Your task to perform on an android device: turn on javascript in the chrome app Image 0: 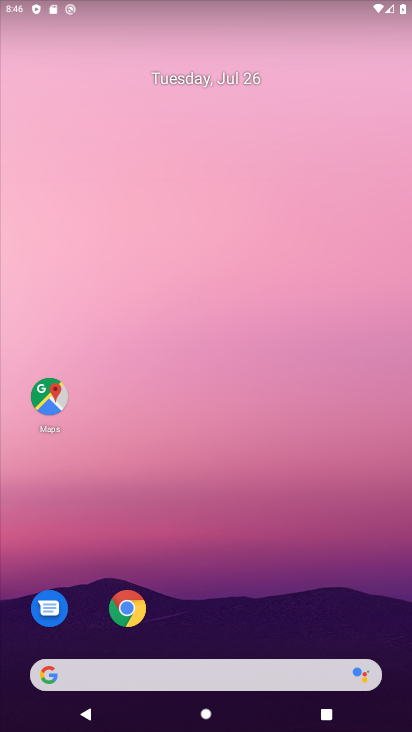
Step 0: click (119, 612)
Your task to perform on an android device: turn on javascript in the chrome app Image 1: 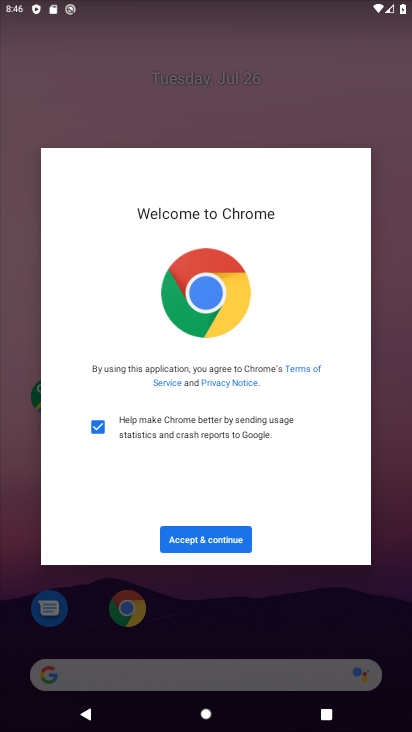
Step 1: click (231, 537)
Your task to perform on an android device: turn on javascript in the chrome app Image 2: 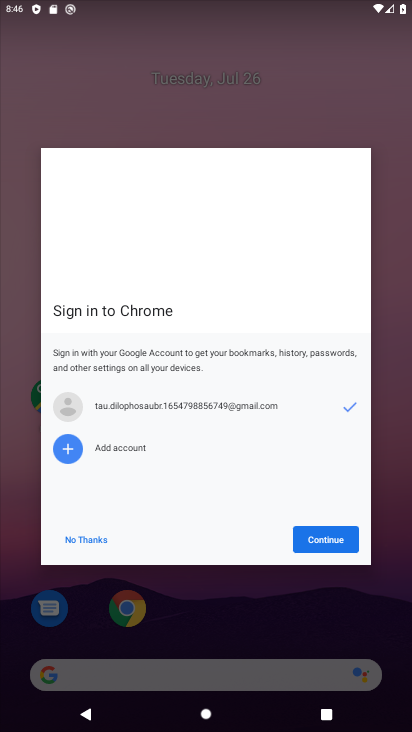
Step 2: click (342, 543)
Your task to perform on an android device: turn on javascript in the chrome app Image 3: 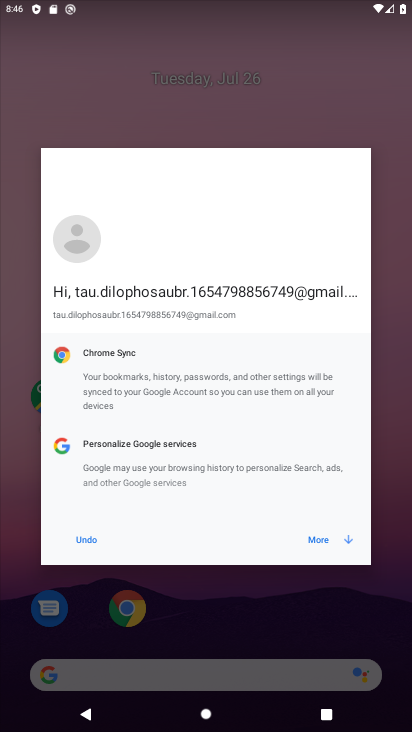
Step 3: click (342, 543)
Your task to perform on an android device: turn on javascript in the chrome app Image 4: 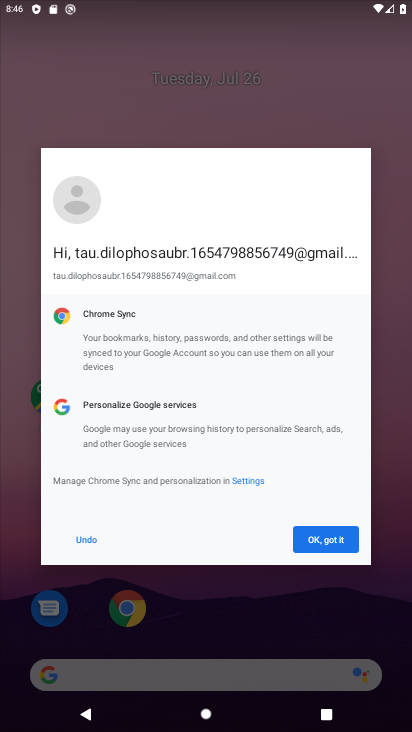
Step 4: click (342, 543)
Your task to perform on an android device: turn on javascript in the chrome app Image 5: 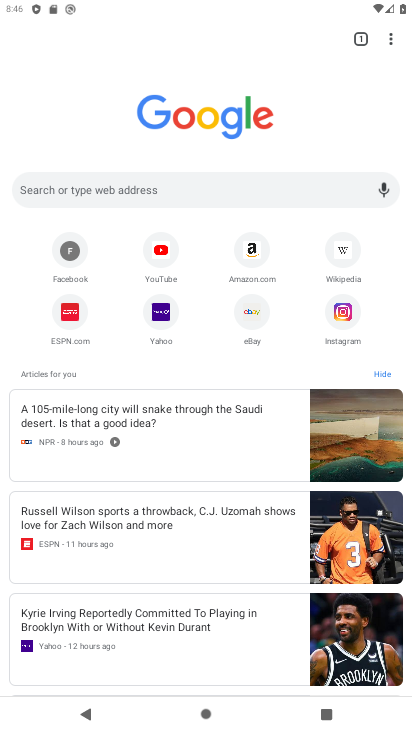
Step 5: click (393, 42)
Your task to perform on an android device: turn on javascript in the chrome app Image 6: 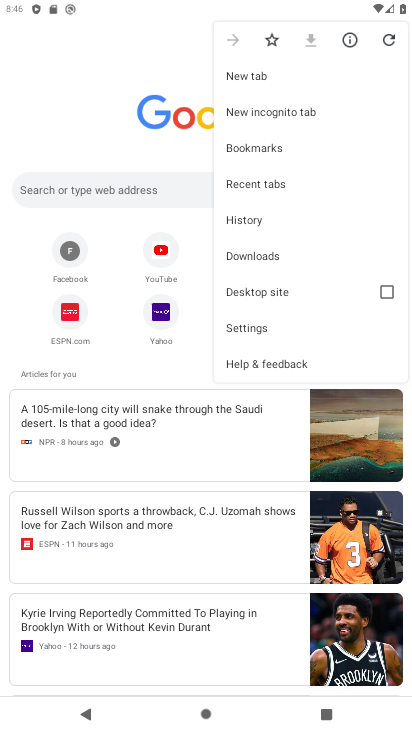
Step 6: click (282, 322)
Your task to perform on an android device: turn on javascript in the chrome app Image 7: 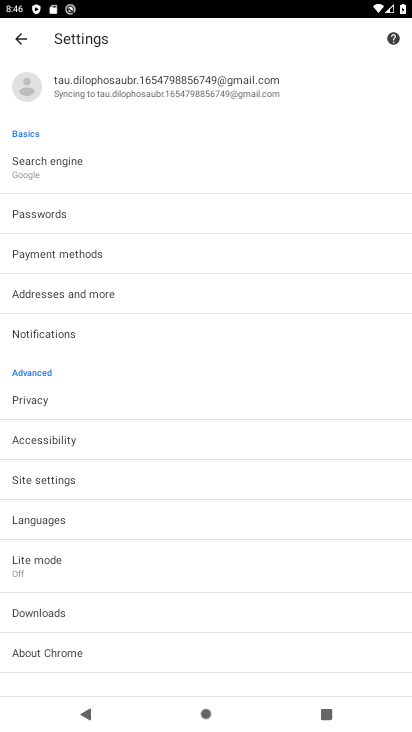
Step 7: click (51, 473)
Your task to perform on an android device: turn on javascript in the chrome app Image 8: 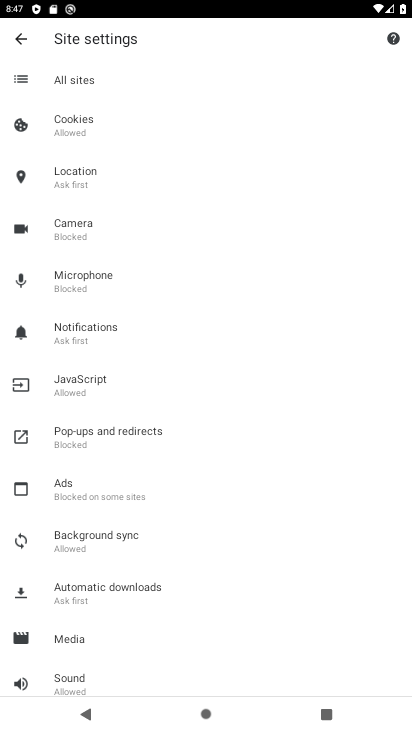
Step 8: click (144, 383)
Your task to perform on an android device: turn on javascript in the chrome app Image 9: 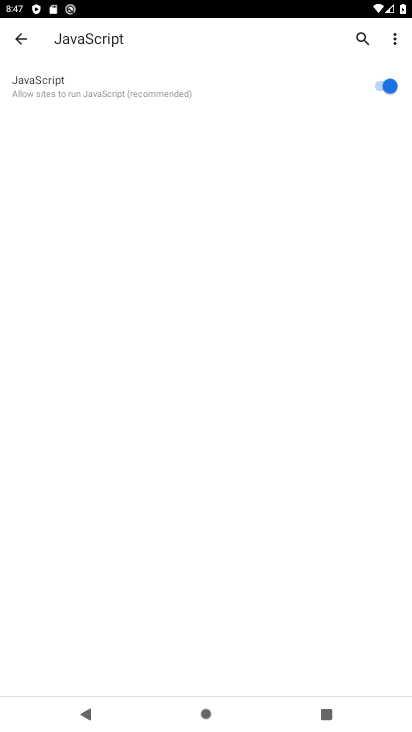
Step 9: task complete